Your task to perform on an android device: allow notifications from all sites in the chrome app Image 0: 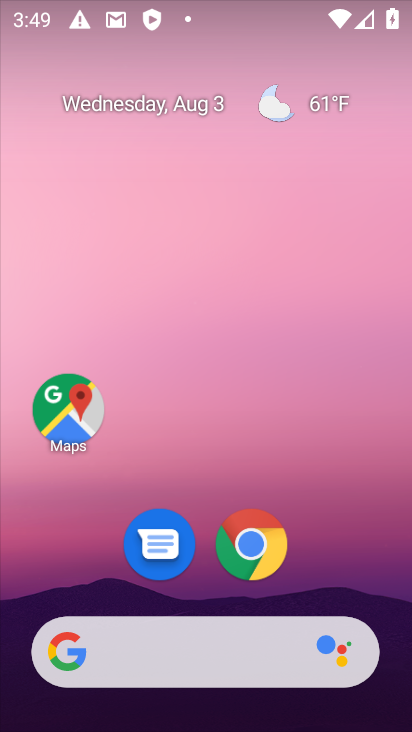
Step 0: press home button
Your task to perform on an android device: allow notifications from all sites in the chrome app Image 1: 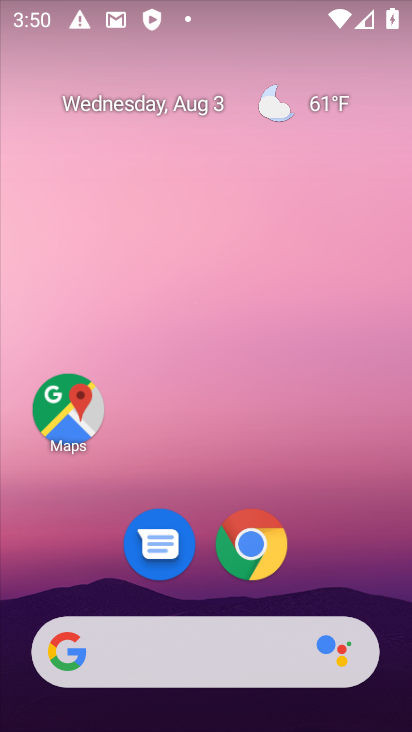
Step 1: drag from (330, 556) to (346, 69)
Your task to perform on an android device: allow notifications from all sites in the chrome app Image 2: 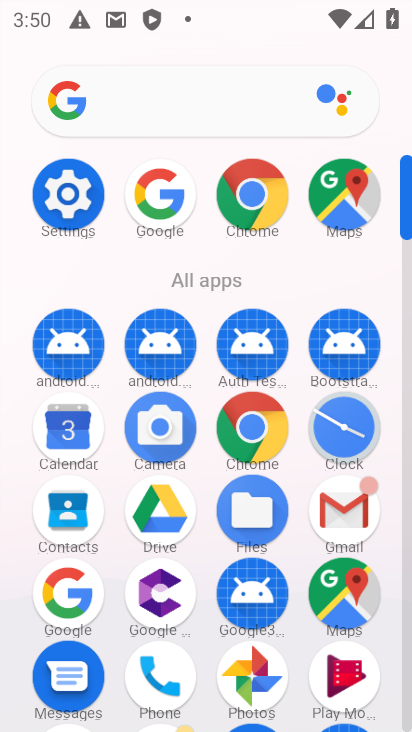
Step 2: click (266, 431)
Your task to perform on an android device: allow notifications from all sites in the chrome app Image 3: 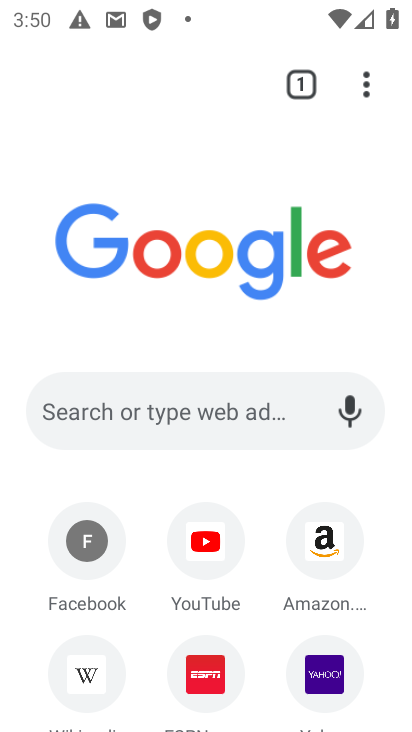
Step 3: drag from (366, 90) to (108, 598)
Your task to perform on an android device: allow notifications from all sites in the chrome app Image 4: 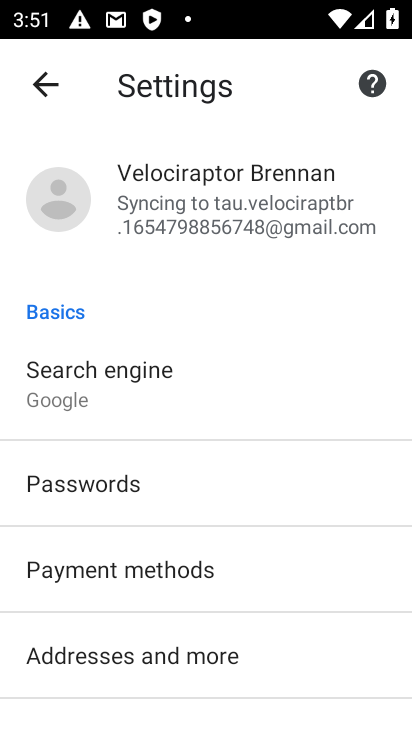
Step 4: drag from (315, 674) to (308, 326)
Your task to perform on an android device: allow notifications from all sites in the chrome app Image 5: 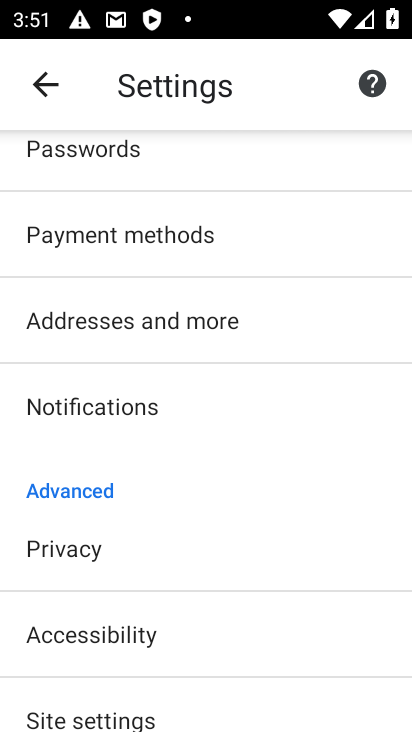
Step 5: drag from (278, 706) to (293, 368)
Your task to perform on an android device: allow notifications from all sites in the chrome app Image 6: 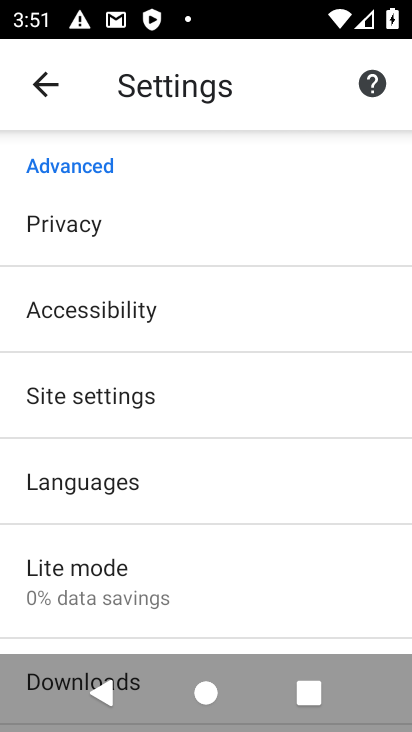
Step 6: click (149, 393)
Your task to perform on an android device: allow notifications from all sites in the chrome app Image 7: 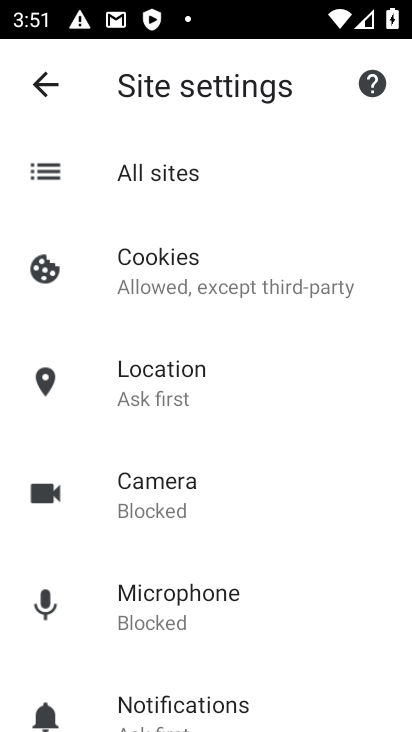
Step 7: drag from (245, 622) to (278, 188)
Your task to perform on an android device: allow notifications from all sites in the chrome app Image 8: 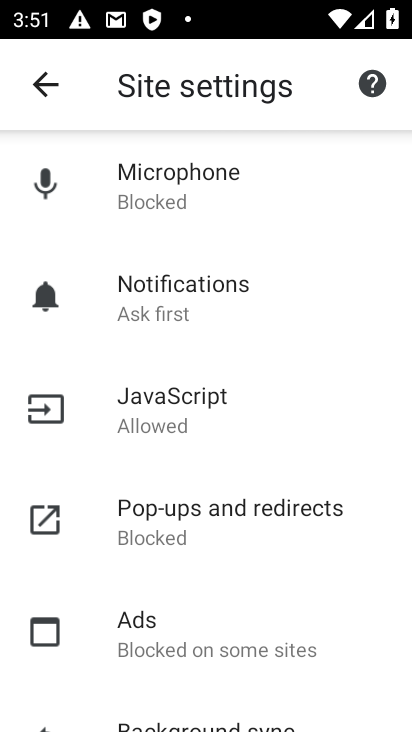
Step 8: click (200, 298)
Your task to perform on an android device: allow notifications from all sites in the chrome app Image 9: 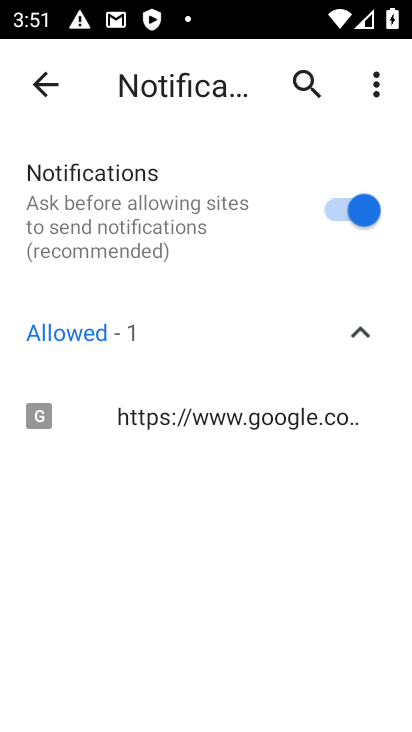
Step 9: task complete